Your task to perform on an android device: Show me productivity apps on the Play Store Image 0: 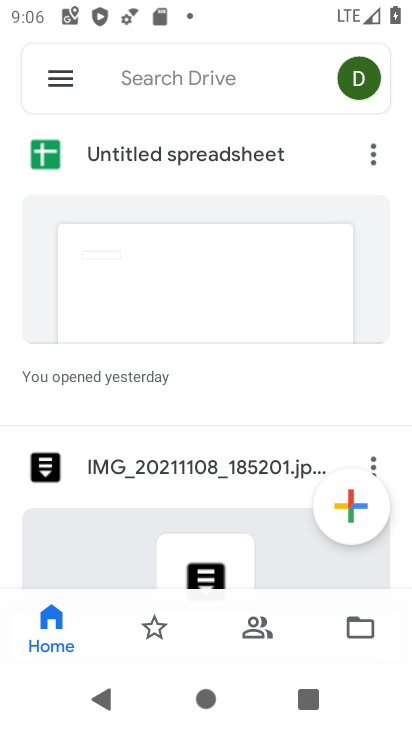
Step 0: press home button
Your task to perform on an android device: Show me productivity apps on the Play Store Image 1: 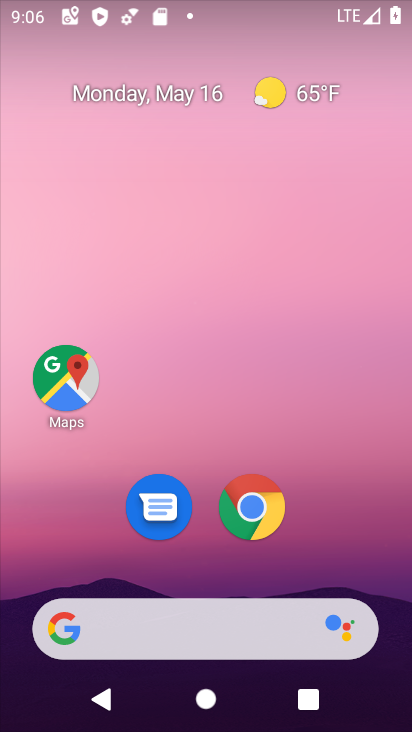
Step 1: drag from (201, 571) to (0, 428)
Your task to perform on an android device: Show me productivity apps on the Play Store Image 2: 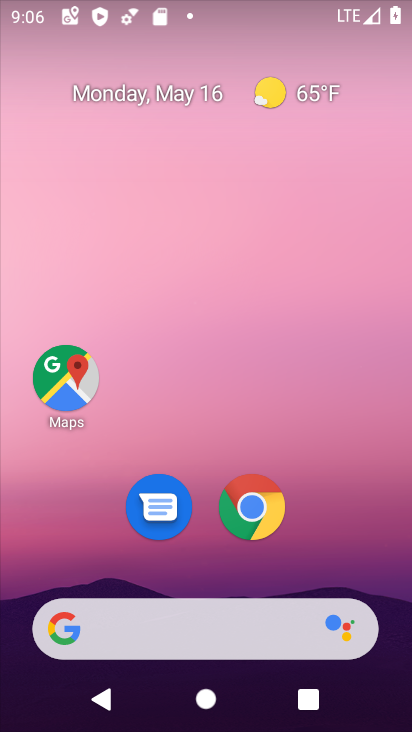
Step 2: drag from (223, 553) to (219, 5)
Your task to perform on an android device: Show me productivity apps on the Play Store Image 3: 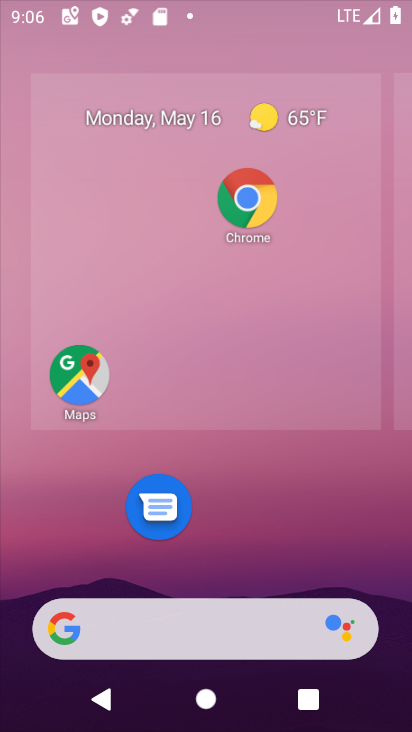
Step 3: click (236, 541)
Your task to perform on an android device: Show me productivity apps on the Play Store Image 4: 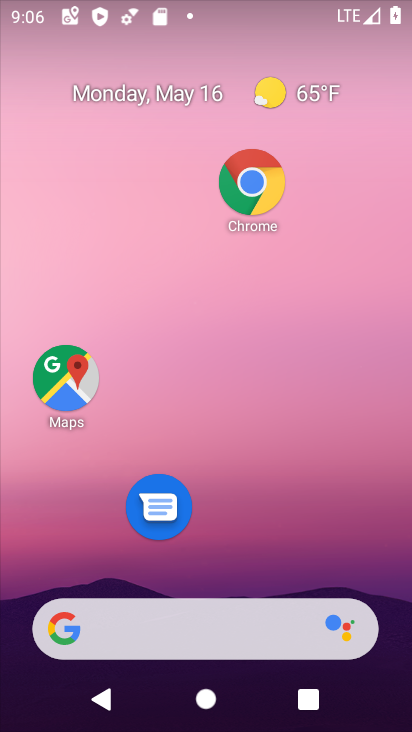
Step 4: drag from (236, 573) to (195, 28)
Your task to perform on an android device: Show me productivity apps on the Play Store Image 5: 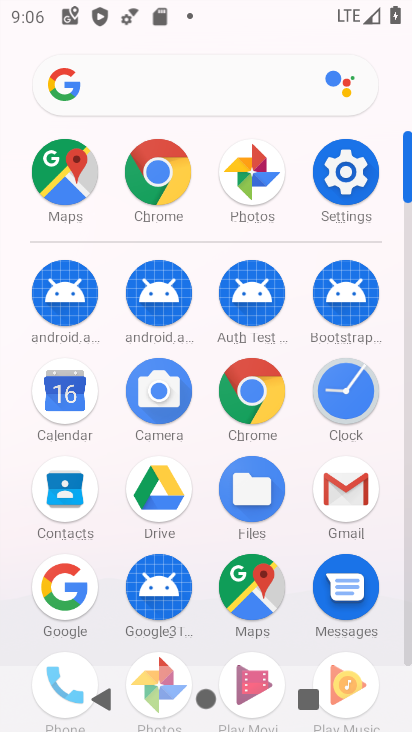
Step 5: drag from (205, 630) to (191, 209)
Your task to perform on an android device: Show me productivity apps on the Play Store Image 6: 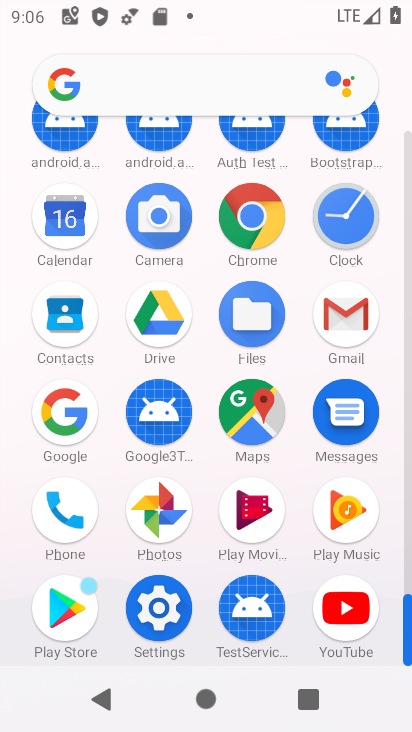
Step 6: click (51, 624)
Your task to perform on an android device: Show me productivity apps on the Play Store Image 7: 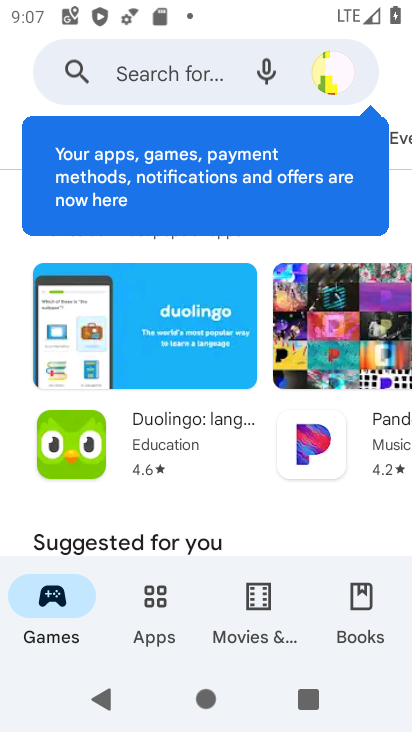
Step 7: click (149, 590)
Your task to perform on an android device: Show me productivity apps on the Play Store Image 8: 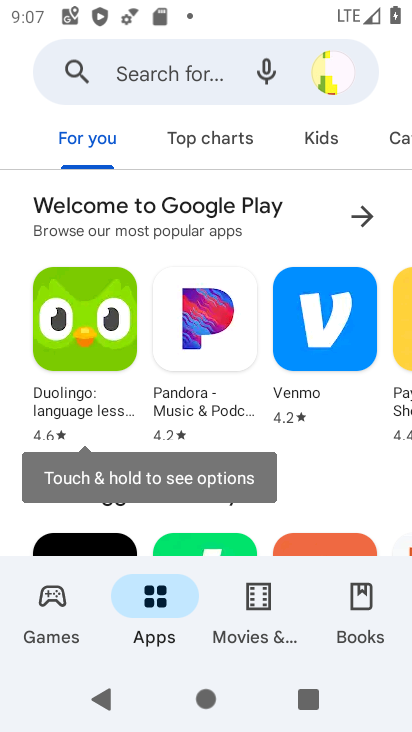
Step 8: drag from (329, 136) to (33, 93)
Your task to perform on an android device: Show me productivity apps on the Play Store Image 9: 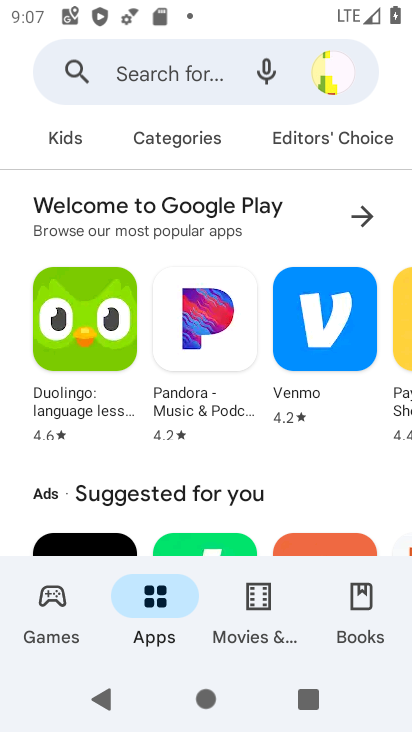
Step 9: click (149, 130)
Your task to perform on an android device: Show me productivity apps on the Play Store Image 10: 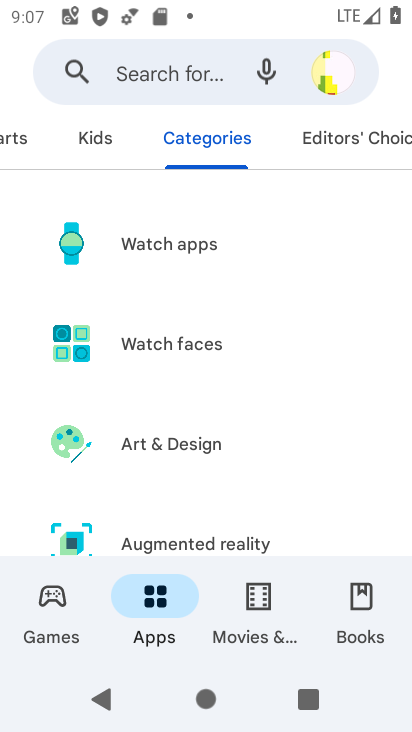
Step 10: drag from (247, 478) to (275, 15)
Your task to perform on an android device: Show me productivity apps on the Play Store Image 11: 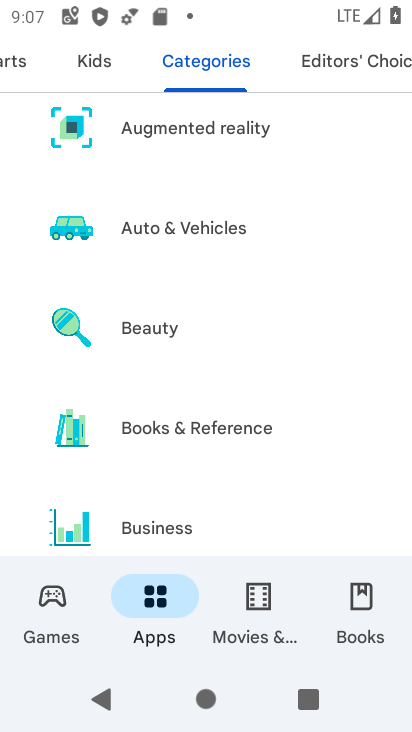
Step 11: drag from (193, 431) to (142, 10)
Your task to perform on an android device: Show me productivity apps on the Play Store Image 12: 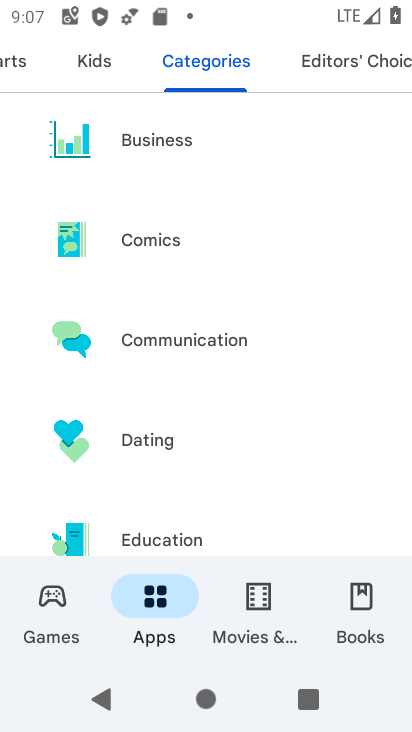
Step 12: drag from (229, 475) to (230, 174)
Your task to perform on an android device: Show me productivity apps on the Play Store Image 13: 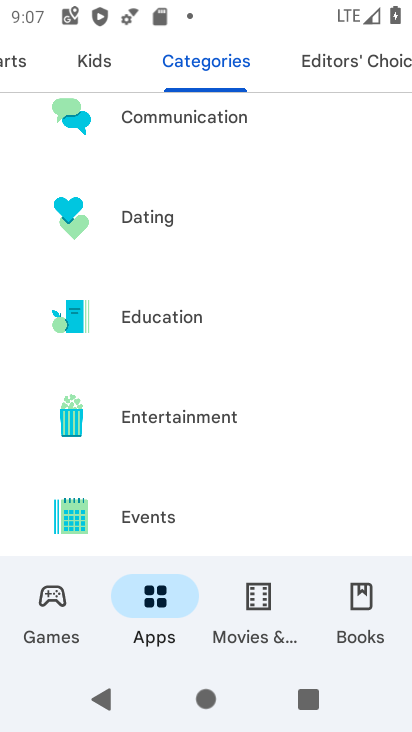
Step 13: drag from (291, 428) to (255, 16)
Your task to perform on an android device: Show me productivity apps on the Play Store Image 14: 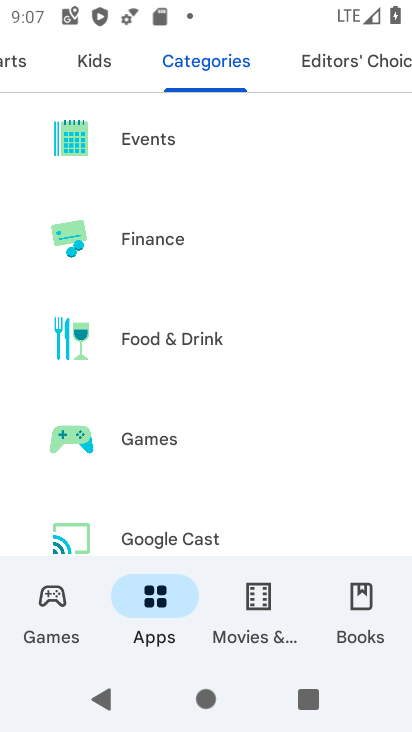
Step 14: drag from (206, 430) to (195, 7)
Your task to perform on an android device: Show me productivity apps on the Play Store Image 15: 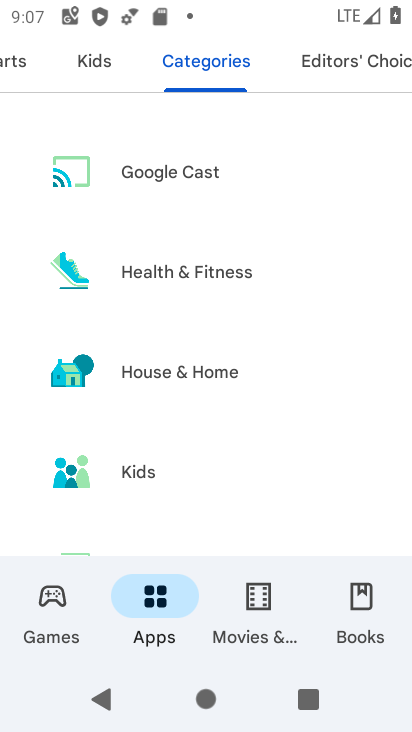
Step 15: drag from (149, 405) to (135, 1)
Your task to perform on an android device: Show me productivity apps on the Play Store Image 16: 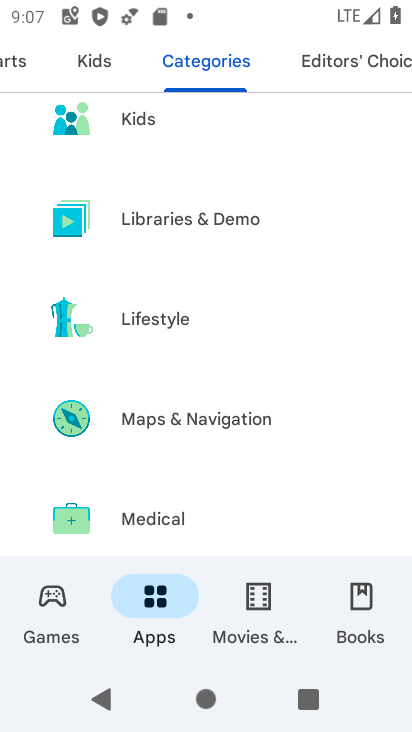
Step 16: drag from (298, 485) to (255, 21)
Your task to perform on an android device: Show me productivity apps on the Play Store Image 17: 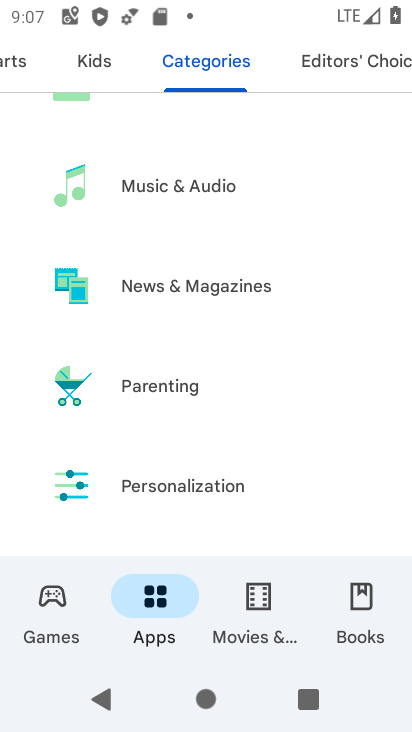
Step 17: drag from (187, 443) to (156, 14)
Your task to perform on an android device: Show me productivity apps on the Play Store Image 18: 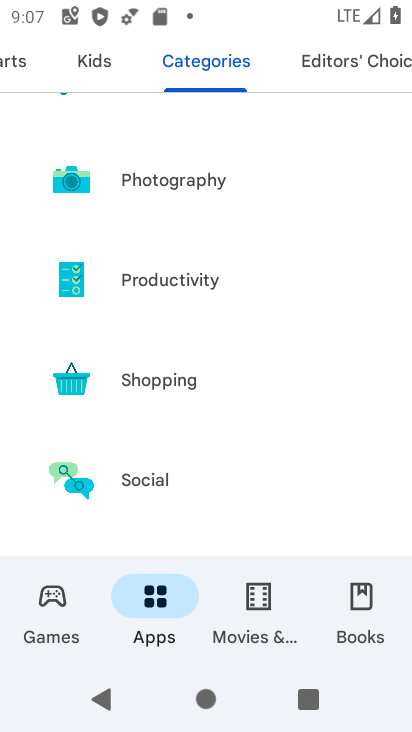
Step 18: click (150, 273)
Your task to perform on an android device: Show me productivity apps on the Play Store Image 19: 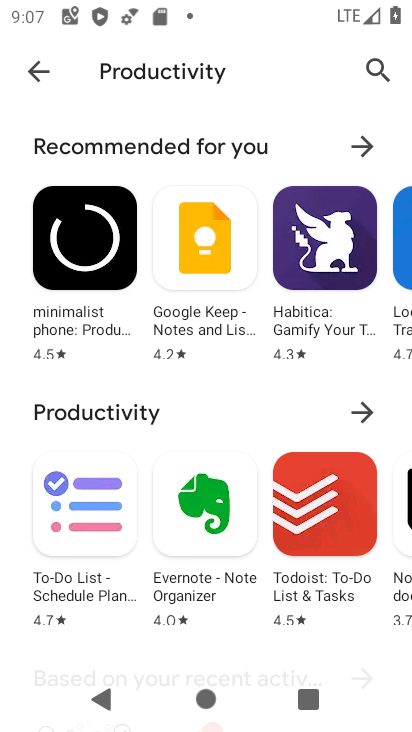
Step 19: task complete